Your task to perform on an android device: Open calendar and show me the third week of next month Image 0: 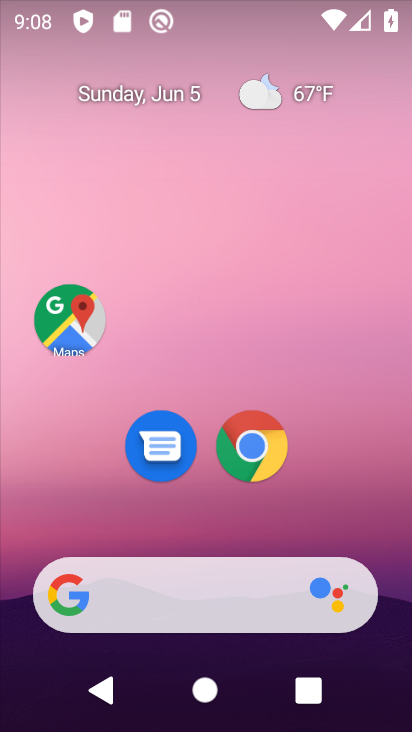
Step 0: drag from (202, 513) to (216, 189)
Your task to perform on an android device: Open calendar and show me the third week of next month Image 1: 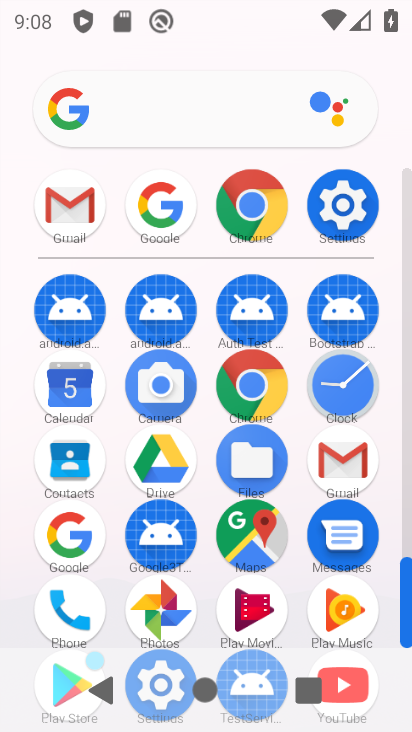
Step 1: click (75, 389)
Your task to perform on an android device: Open calendar and show me the third week of next month Image 2: 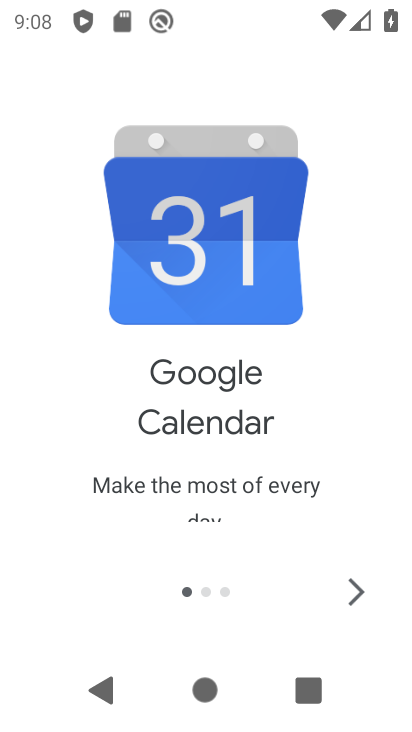
Step 2: click (342, 590)
Your task to perform on an android device: Open calendar and show me the third week of next month Image 3: 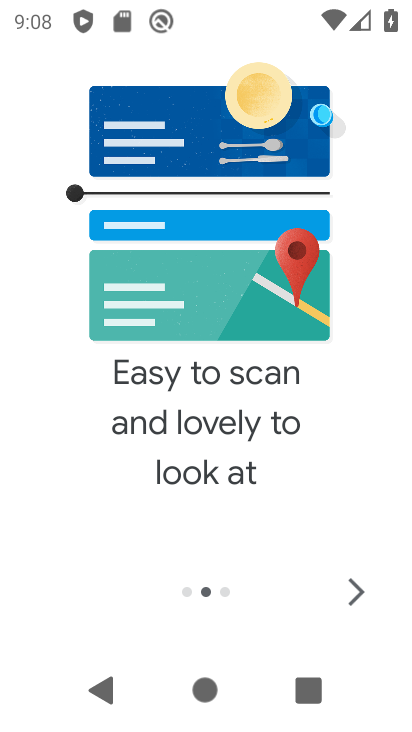
Step 3: click (342, 590)
Your task to perform on an android device: Open calendar and show me the third week of next month Image 4: 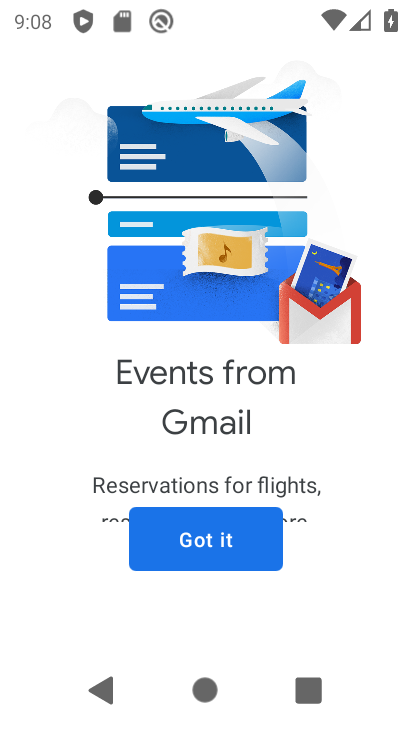
Step 4: click (223, 540)
Your task to perform on an android device: Open calendar and show me the third week of next month Image 5: 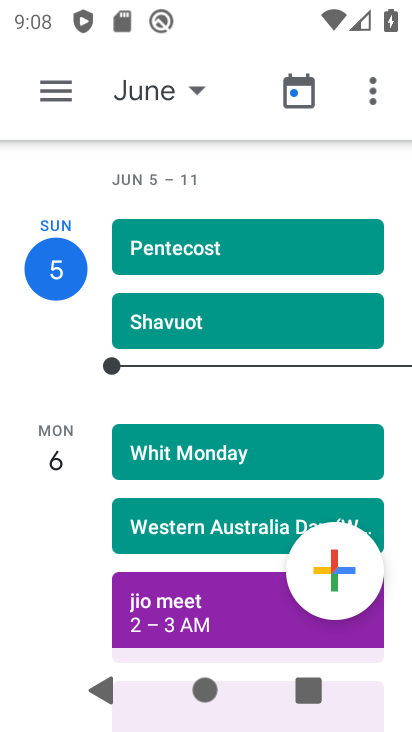
Step 5: click (183, 77)
Your task to perform on an android device: Open calendar and show me the third week of next month Image 6: 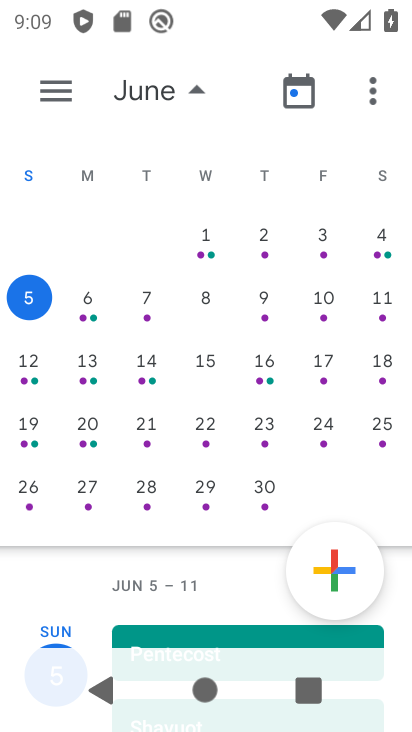
Step 6: drag from (333, 290) to (75, 284)
Your task to perform on an android device: Open calendar and show me the third week of next month Image 7: 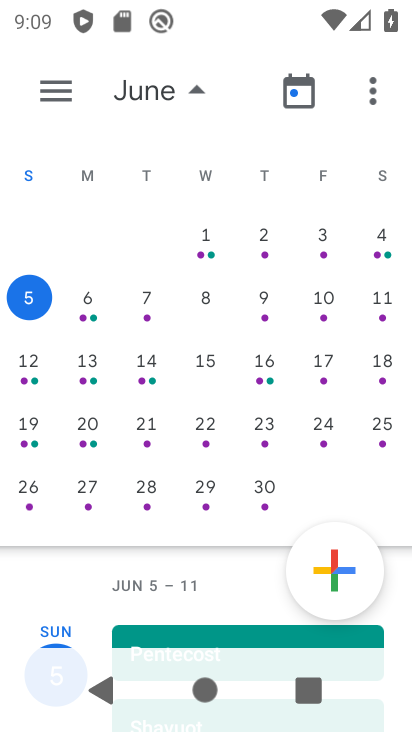
Step 7: drag from (344, 346) to (20, 319)
Your task to perform on an android device: Open calendar and show me the third week of next month Image 8: 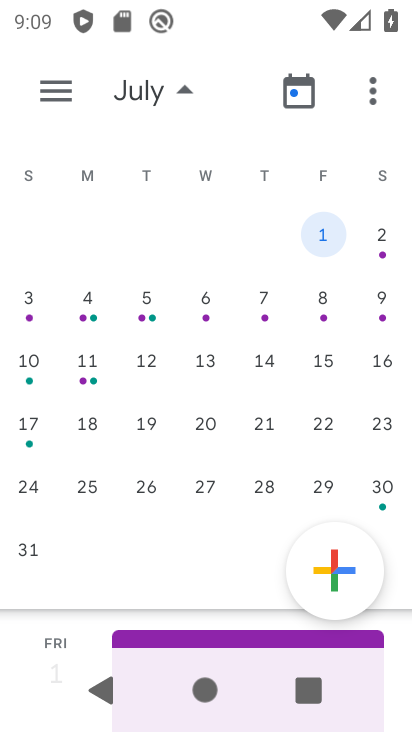
Step 8: click (32, 352)
Your task to perform on an android device: Open calendar and show me the third week of next month Image 9: 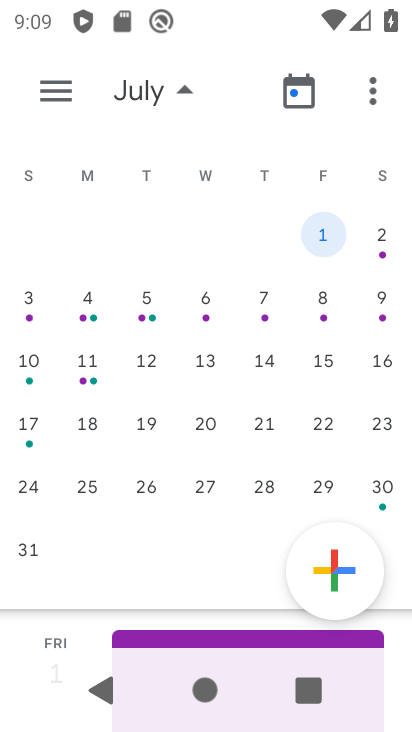
Step 9: click (29, 363)
Your task to perform on an android device: Open calendar and show me the third week of next month Image 10: 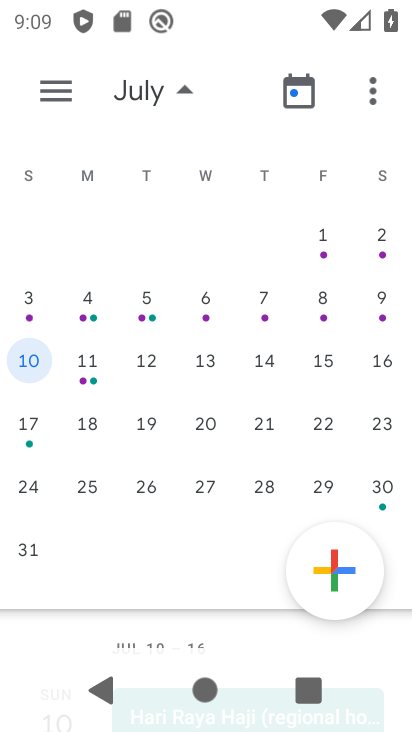
Step 10: task complete